Your task to perform on an android device: turn on data saver in the chrome app Image 0: 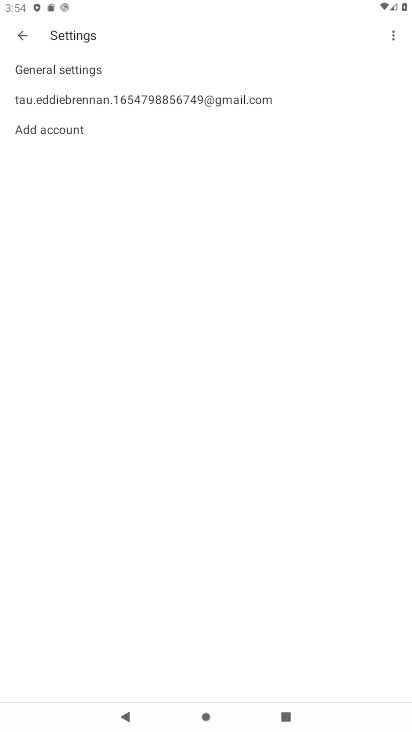
Step 0: press home button
Your task to perform on an android device: turn on data saver in the chrome app Image 1: 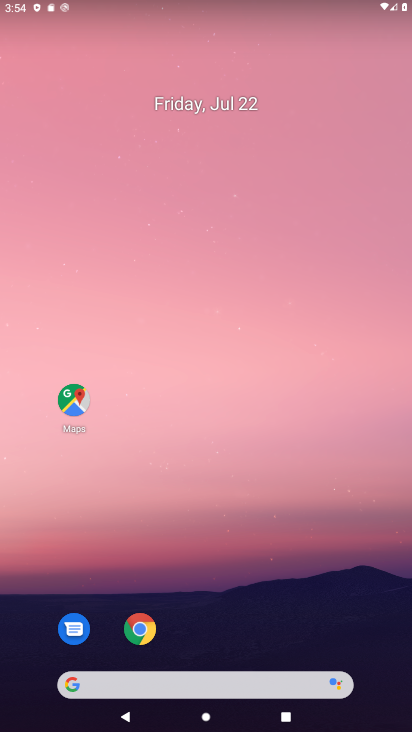
Step 1: drag from (231, 640) to (217, 274)
Your task to perform on an android device: turn on data saver in the chrome app Image 2: 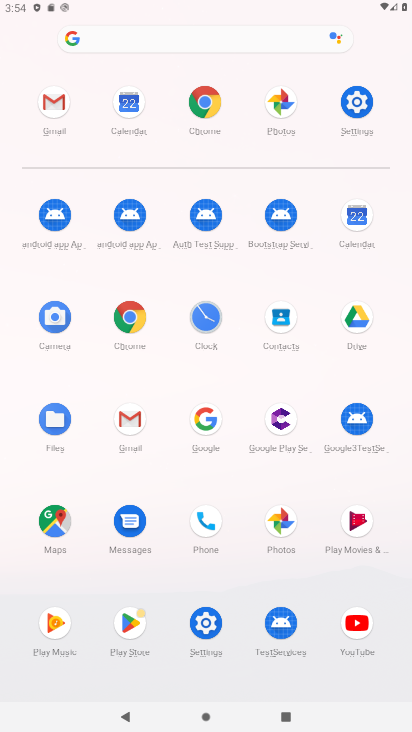
Step 2: click (207, 98)
Your task to perform on an android device: turn on data saver in the chrome app Image 3: 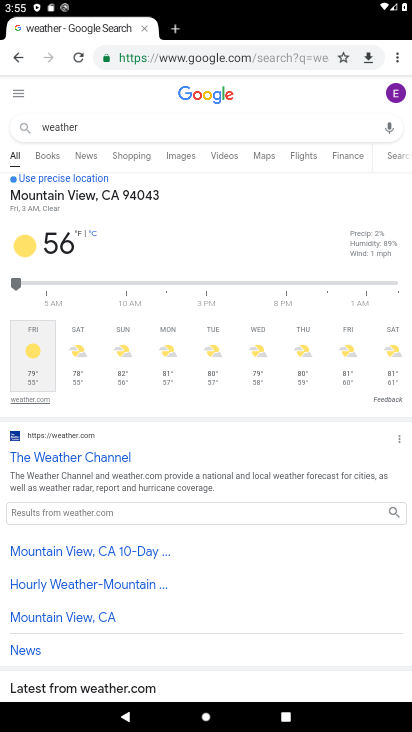
Step 3: drag from (395, 52) to (293, 389)
Your task to perform on an android device: turn on data saver in the chrome app Image 4: 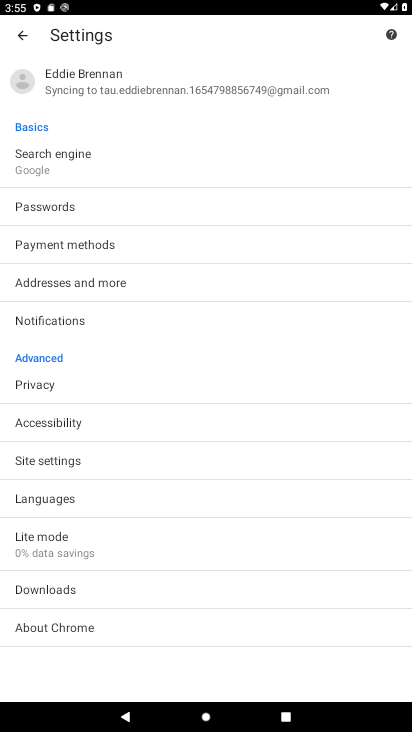
Step 4: click (74, 541)
Your task to perform on an android device: turn on data saver in the chrome app Image 5: 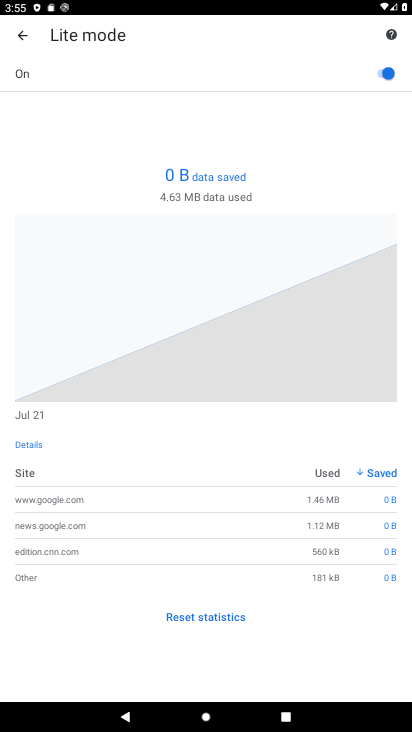
Step 5: task complete